Your task to perform on an android device: Go to Google Image 0: 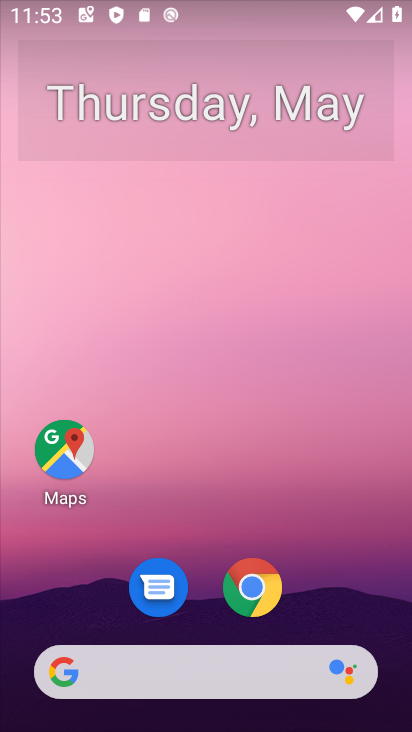
Step 0: drag from (193, 600) to (199, 75)
Your task to perform on an android device: Go to Google Image 1: 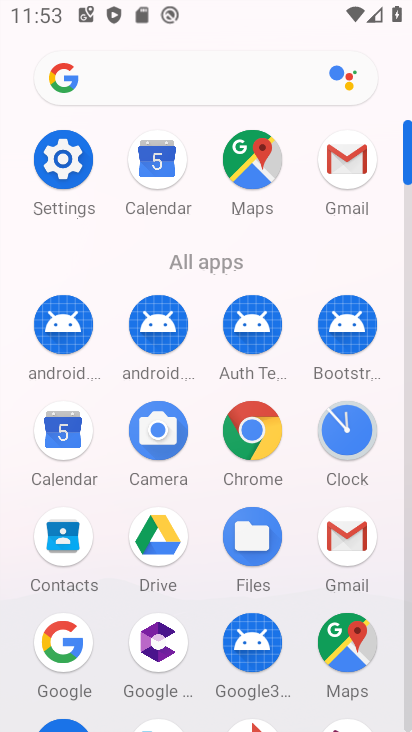
Step 1: click (77, 637)
Your task to perform on an android device: Go to Google Image 2: 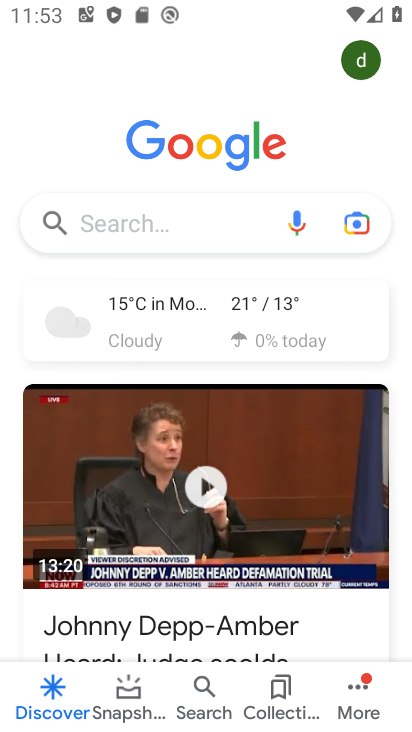
Step 2: task complete